Your task to perform on an android device: Open settings Image 0: 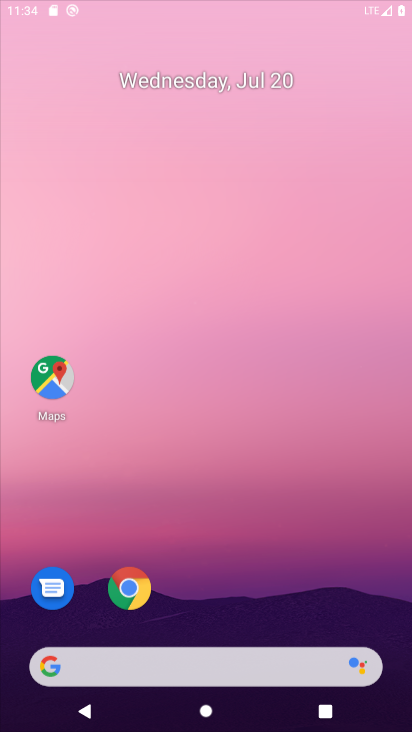
Step 0: press home button
Your task to perform on an android device: Open settings Image 1: 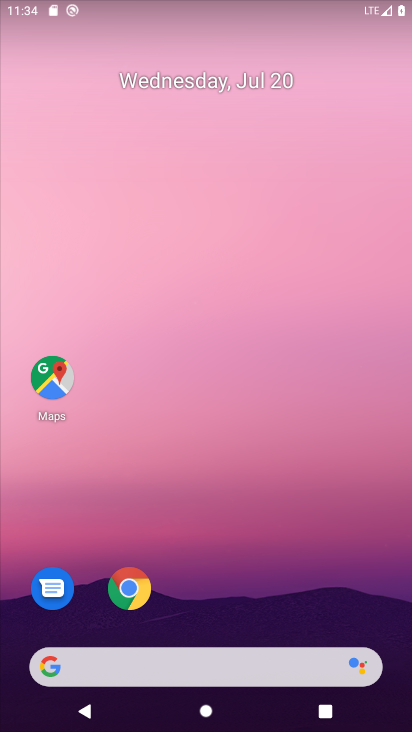
Step 1: drag from (206, 625) to (210, 59)
Your task to perform on an android device: Open settings Image 2: 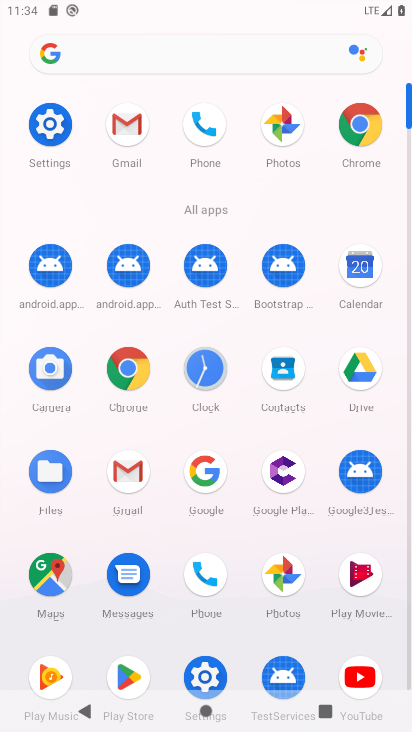
Step 2: click (49, 120)
Your task to perform on an android device: Open settings Image 3: 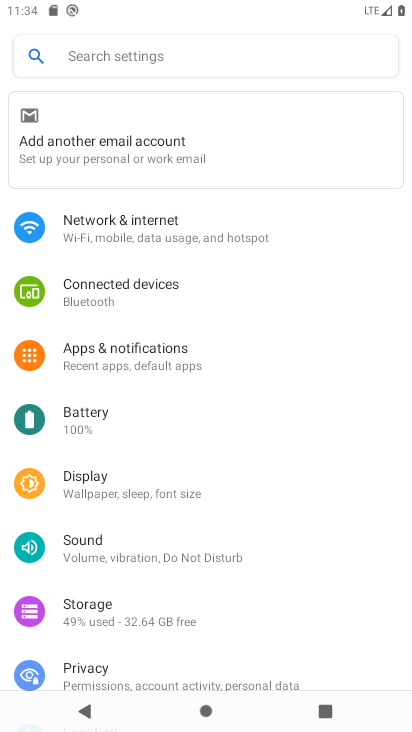
Step 3: task complete